Your task to perform on an android device: Open Google Chrome and click the shortcut for Amazon.com Image 0: 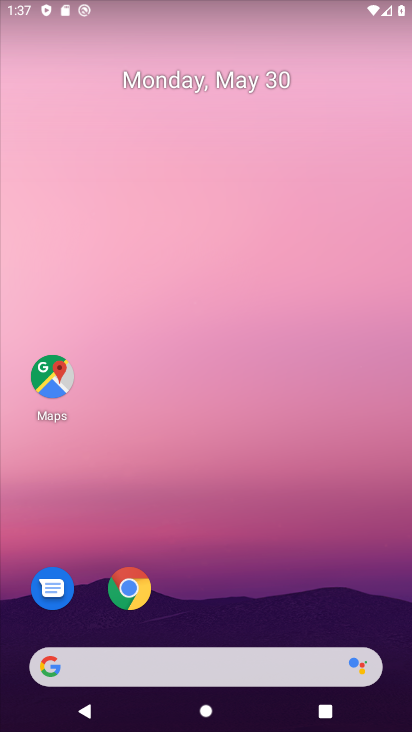
Step 0: drag from (228, 403) to (168, 0)
Your task to perform on an android device: Open Google Chrome and click the shortcut for Amazon.com Image 1: 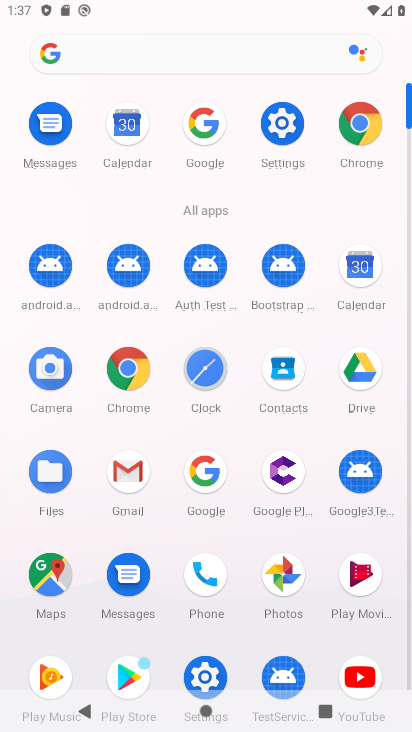
Step 1: click (355, 109)
Your task to perform on an android device: Open Google Chrome and click the shortcut for Amazon.com Image 2: 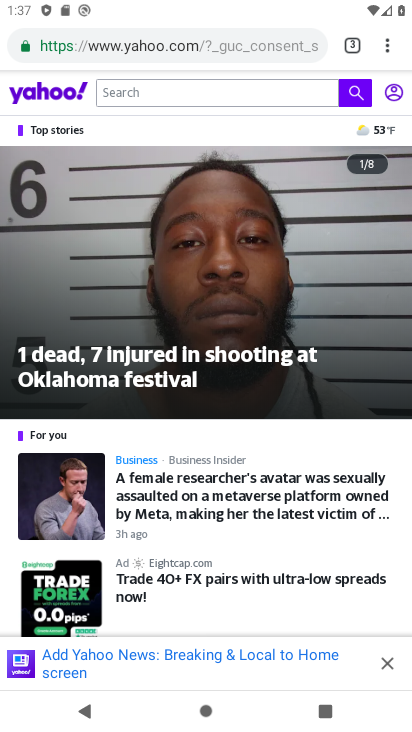
Step 2: click (352, 34)
Your task to perform on an android device: Open Google Chrome and click the shortcut for Amazon.com Image 3: 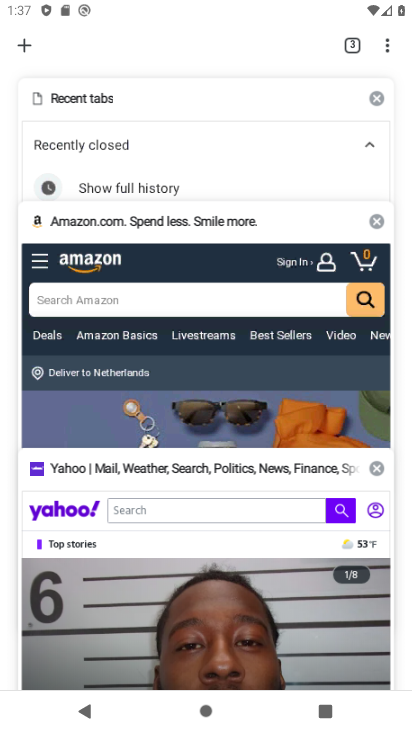
Step 3: click (146, 268)
Your task to perform on an android device: Open Google Chrome and click the shortcut for Amazon.com Image 4: 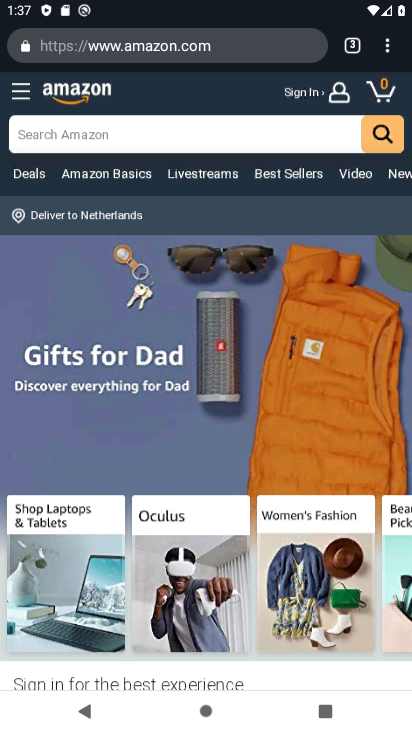
Step 4: task complete